Your task to perform on an android device: Go to Amazon Image 0: 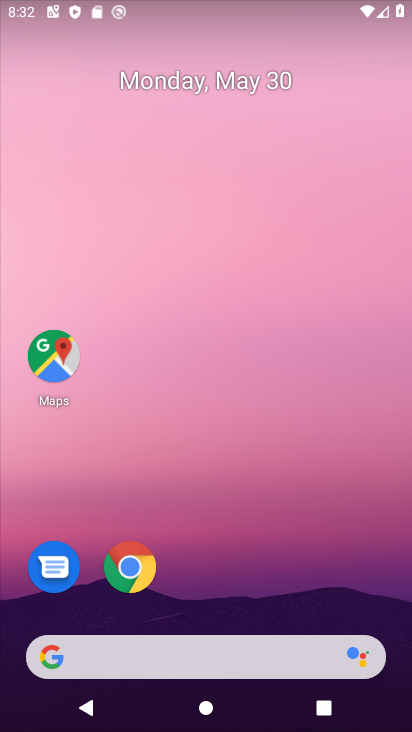
Step 0: click (130, 576)
Your task to perform on an android device: Go to Amazon Image 1: 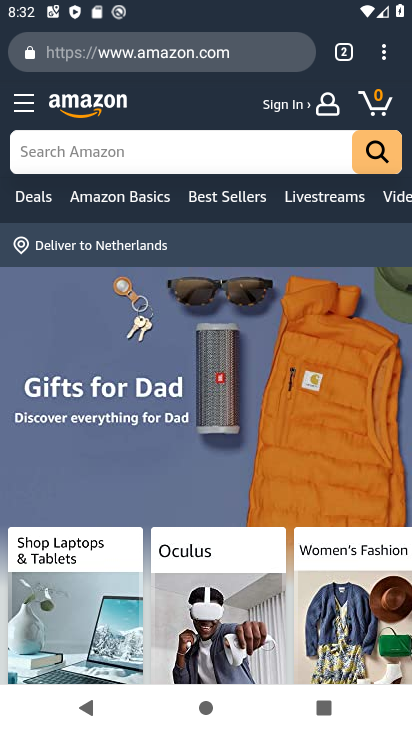
Step 1: task complete